Your task to perform on an android device: Open calendar and show me the fourth week of next month Image 0: 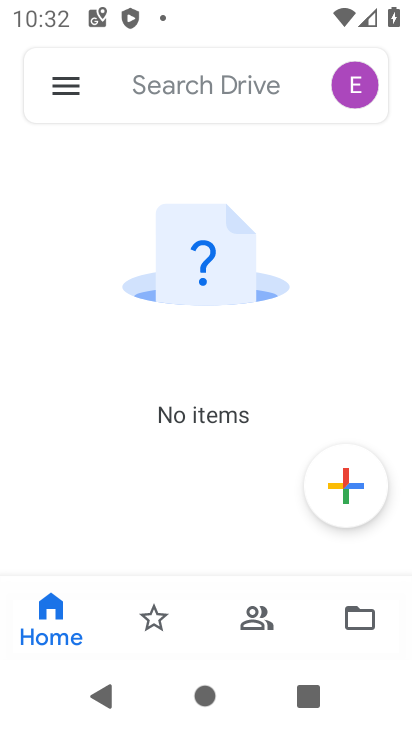
Step 0: press back button
Your task to perform on an android device: Open calendar and show me the fourth week of next month Image 1: 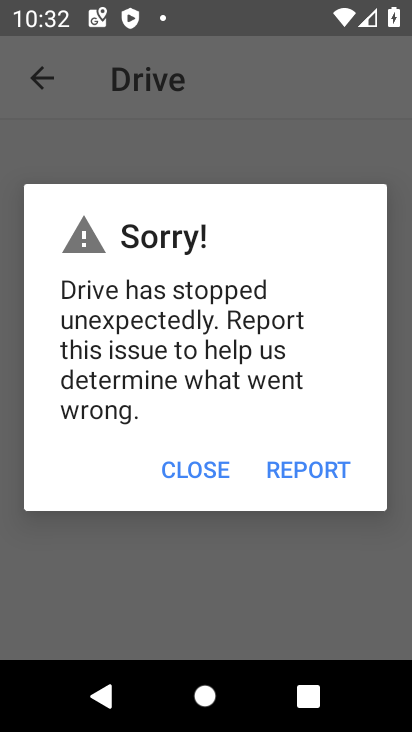
Step 1: click (206, 465)
Your task to perform on an android device: Open calendar and show me the fourth week of next month Image 2: 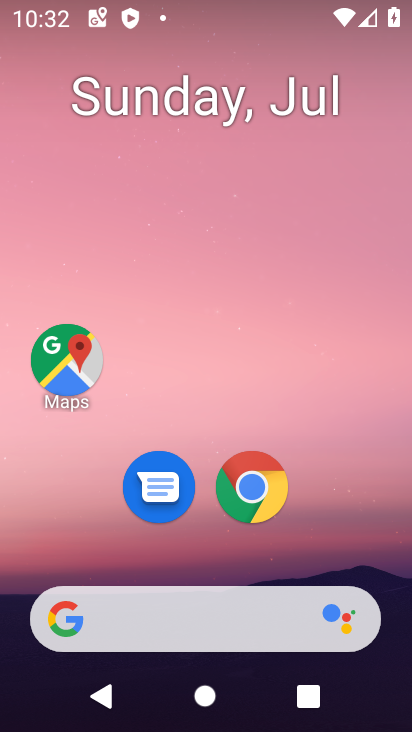
Step 2: drag from (209, 536) to (267, 35)
Your task to perform on an android device: Open calendar and show me the fourth week of next month Image 3: 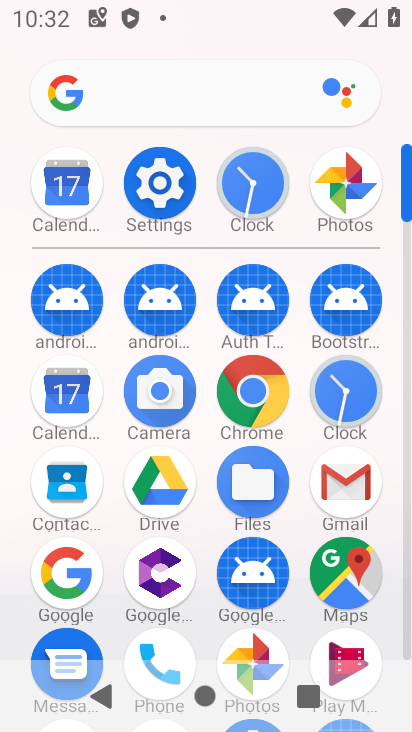
Step 3: click (60, 171)
Your task to perform on an android device: Open calendar and show me the fourth week of next month Image 4: 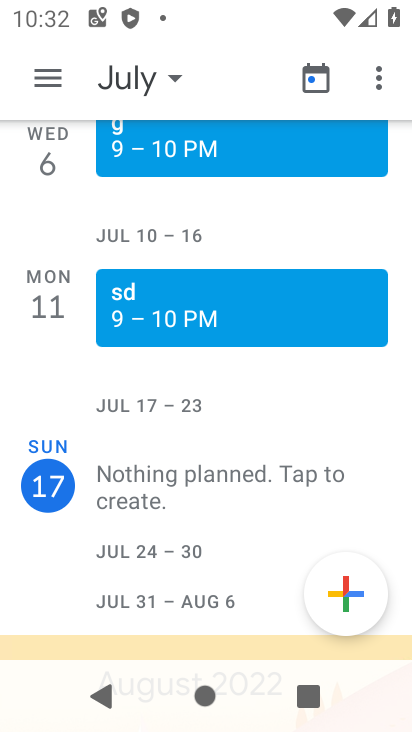
Step 4: click (150, 79)
Your task to perform on an android device: Open calendar and show me the fourth week of next month Image 5: 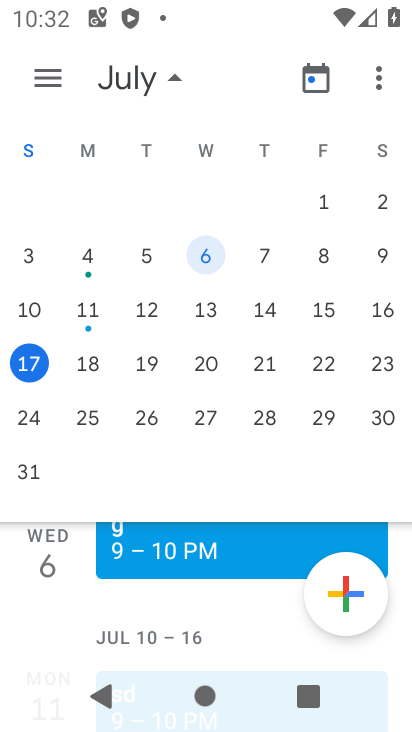
Step 5: drag from (368, 324) to (13, 337)
Your task to perform on an android device: Open calendar and show me the fourth week of next month Image 6: 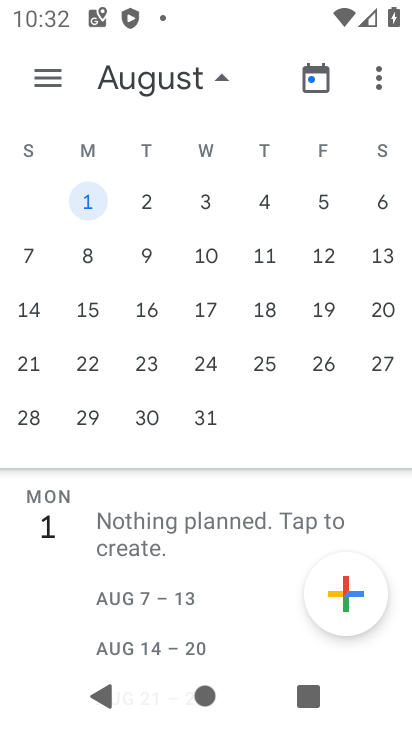
Step 6: click (89, 361)
Your task to perform on an android device: Open calendar and show me the fourth week of next month Image 7: 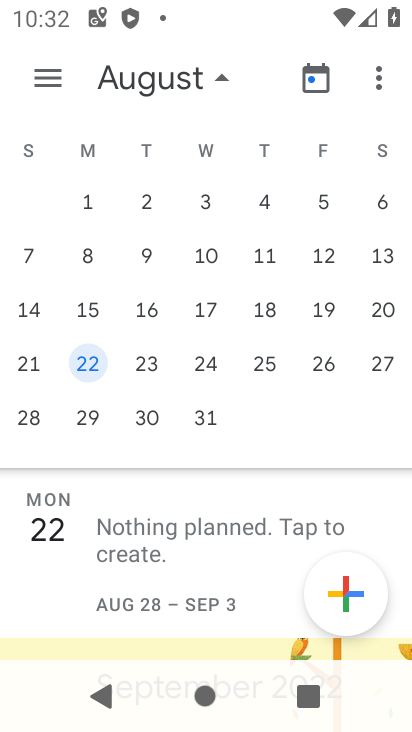
Step 7: task complete